Your task to perform on an android device: Open Google Chrome Image 0: 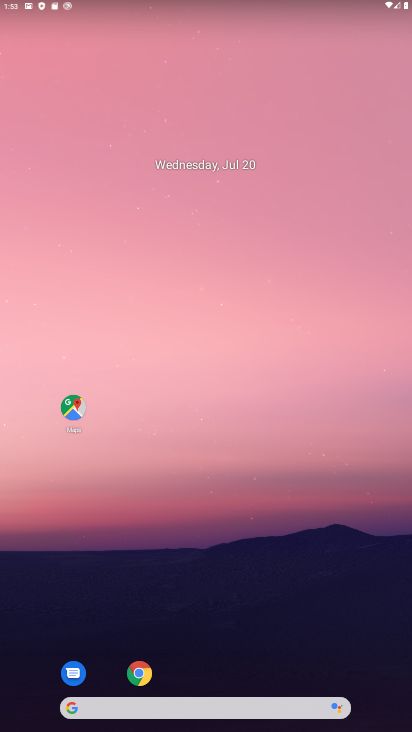
Step 0: click (138, 674)
Your task to perform on an android device: Open Google Chrome Image 1: 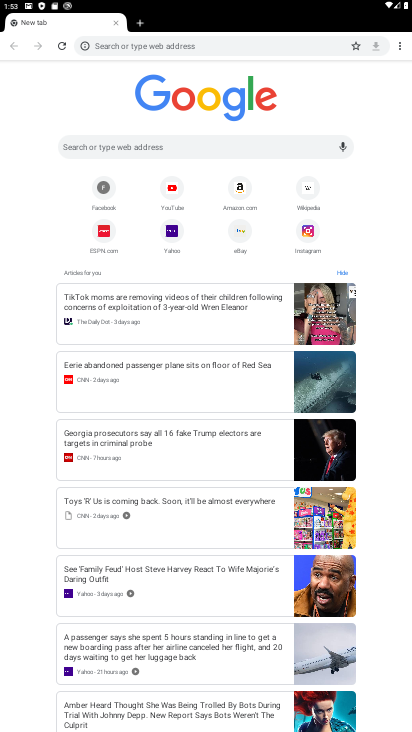
Step 1: task complete